Your task to perform on an android device: Go to CNN.com Image 0: 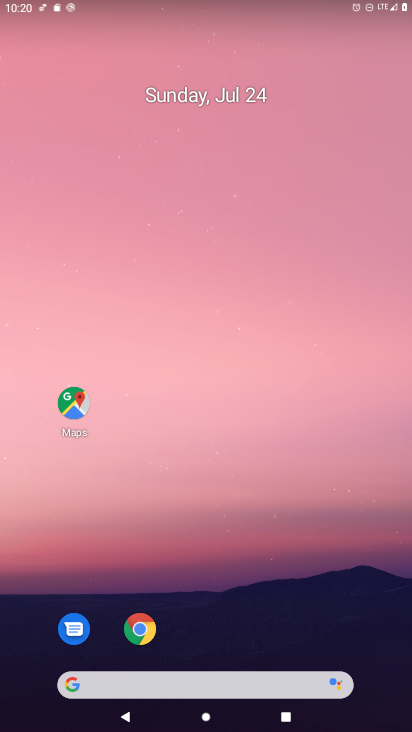
Step 0: drag from (329, 635) to (284, 27)
Your task to perform on an android device: Go to CNN.com Image 1: 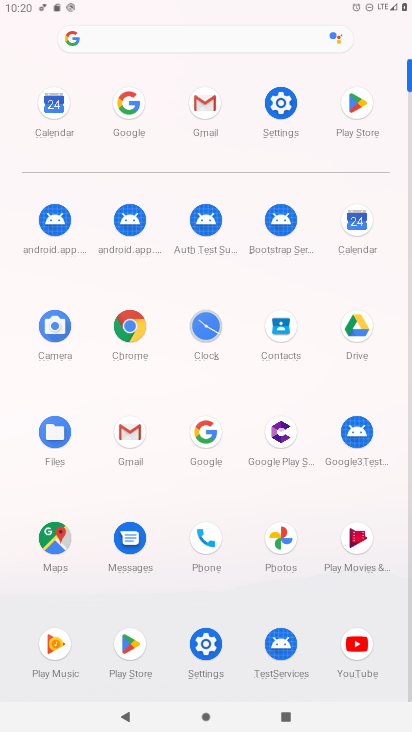
Step 1: click (202, 432)
Your task to perform on an android device: Go to CNN.com Image 2: 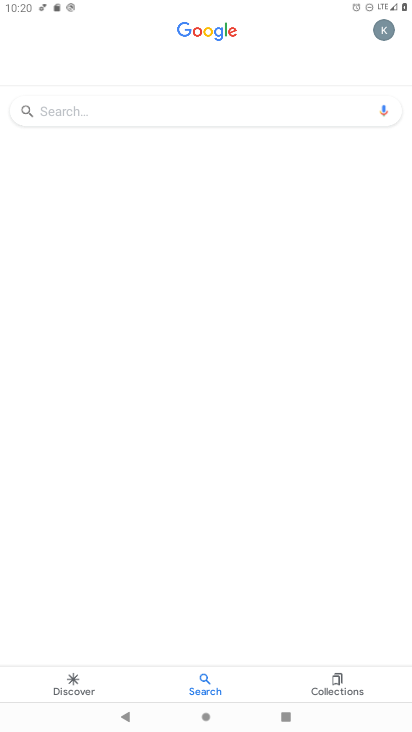
Step 2: click (124, 110)
Your task to perform on an android device: Go to CNN.com Image 3: 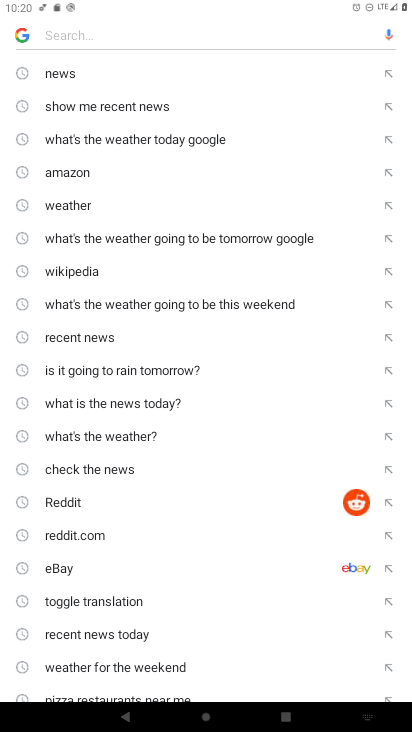
Step 3: type "cnn"
Your task to perform on an android device: Go to CNN.com Image 4: 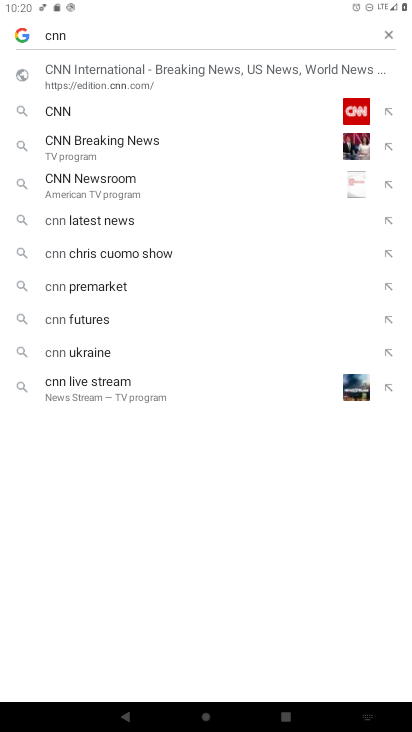
Step 4: click (98, 75)
Your task to perform on an android device: Go to CNN.com Image 5: 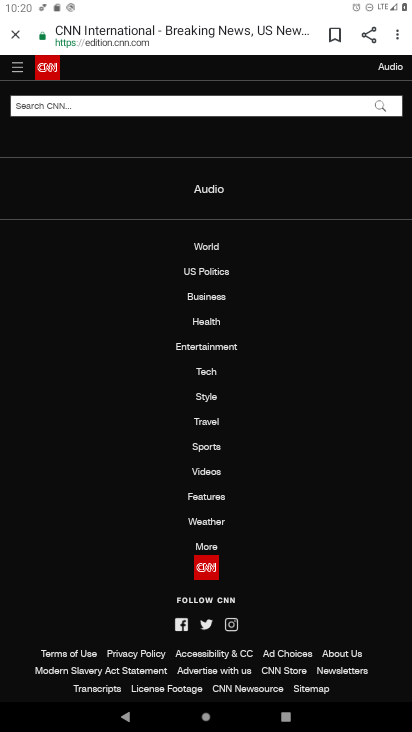
Step 5: task complete